Your task to perform on an android device: toggle airplane mode Image 0: 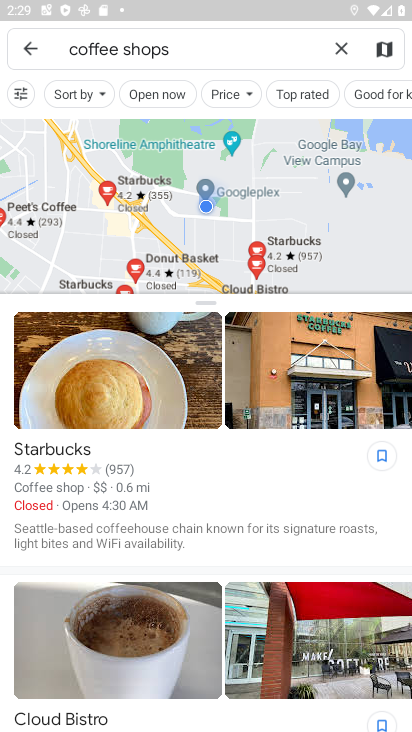
Step 0: click (344, 55)
Your task to perform on an android device: toggle airplane mode Image 1: 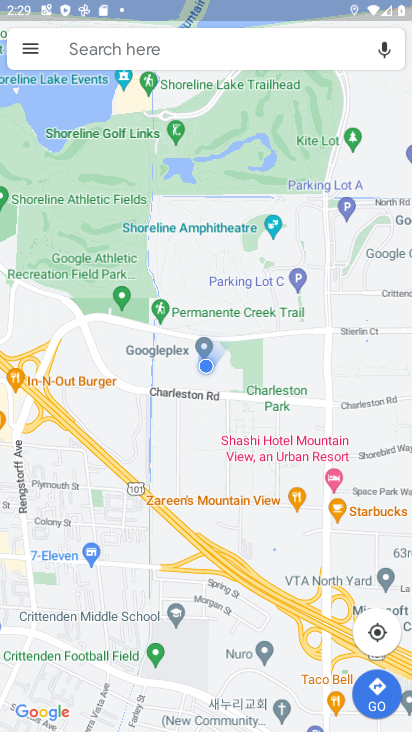
Step 1: press home button
Your task to perform on an android device: toggle airplane mode Image 2: 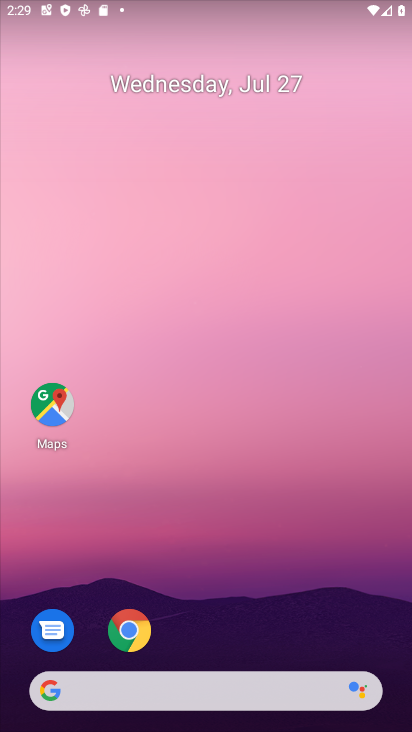
Step 2: drag from (390, 677) to (342, 103)
Your task to perform on an android device: toggle airplane mode Image 3: 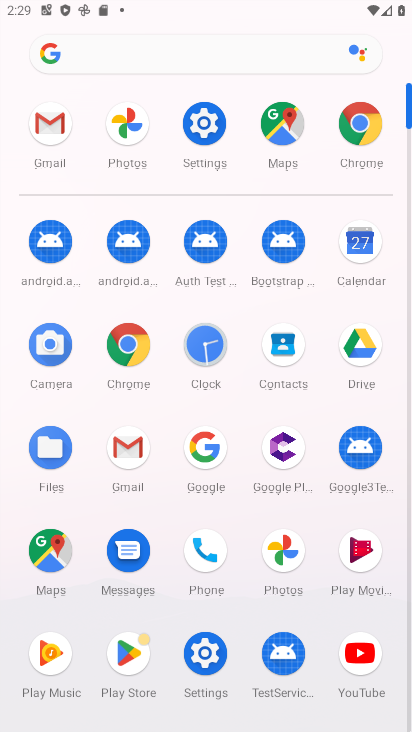
Step 3: click (203, 121)
Your task to perform on an android device: toggle airplane mode Image 4: 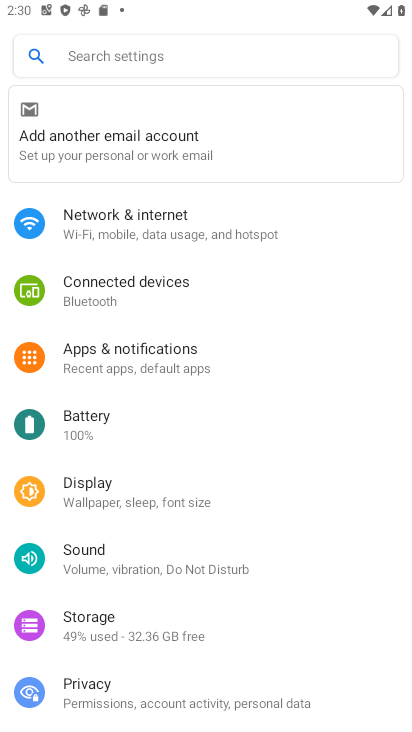
Step 4: click (137, 236)
Your task to perform on an android device: toggle airplane mode Image 5: 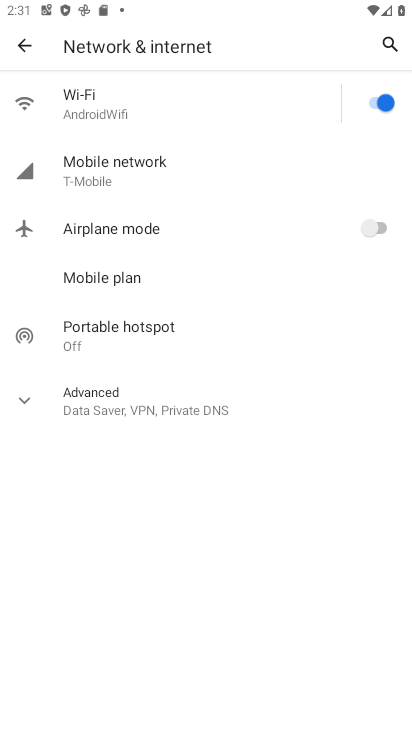
Step 5: click (382, 225)
Your task to perform on an android device: toggle airplane mode Image 6: 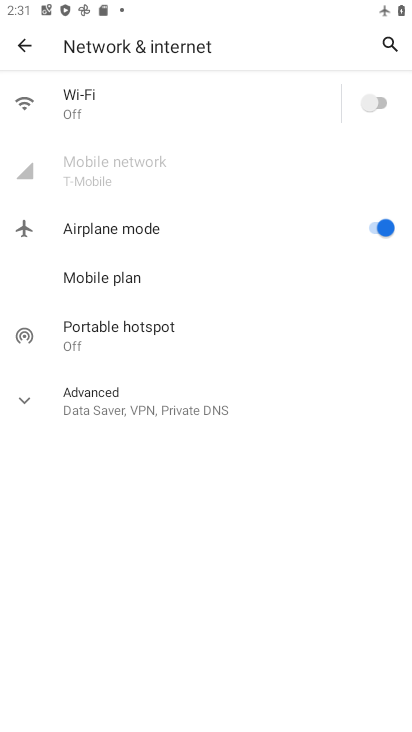
Step 6: task complete